Your task to perform on an android device: check out phone information Image 0: 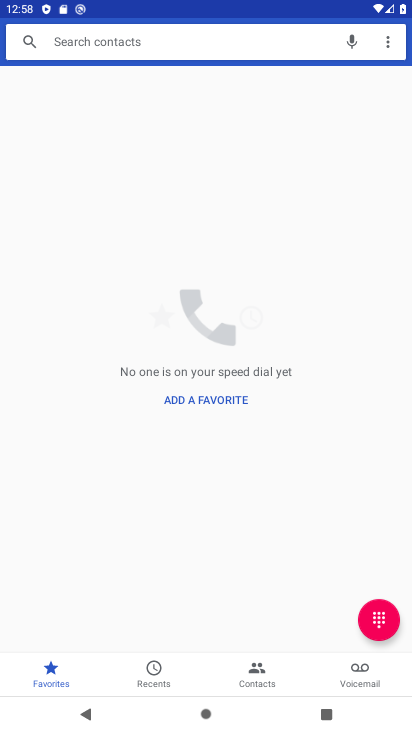
Step 0: press home button
Your task to perform on an android device: check out phone information Image 1: 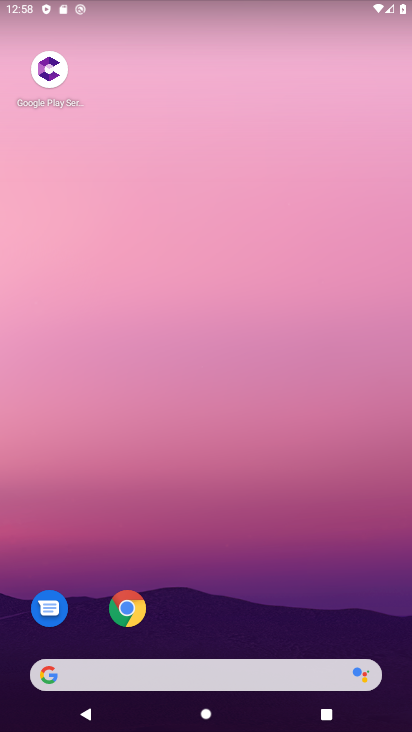
Step 1: drag from (126, 655) to (136, 251)
Your task to perform on an android device: check out phone information Image 2: 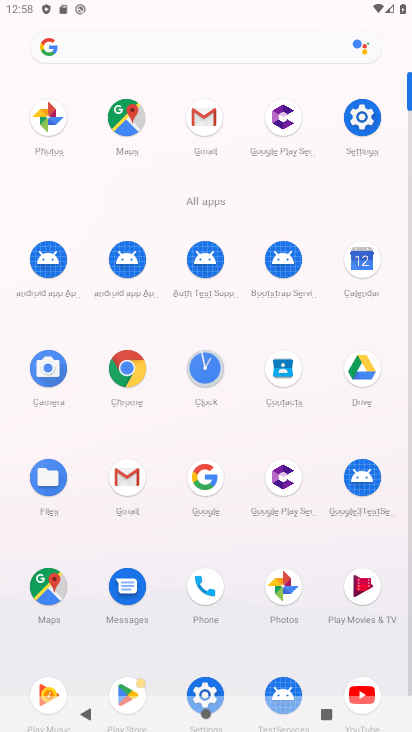
Step 2: click (206, 592)
Your task to perform on an android device: check out phone information Image 3: 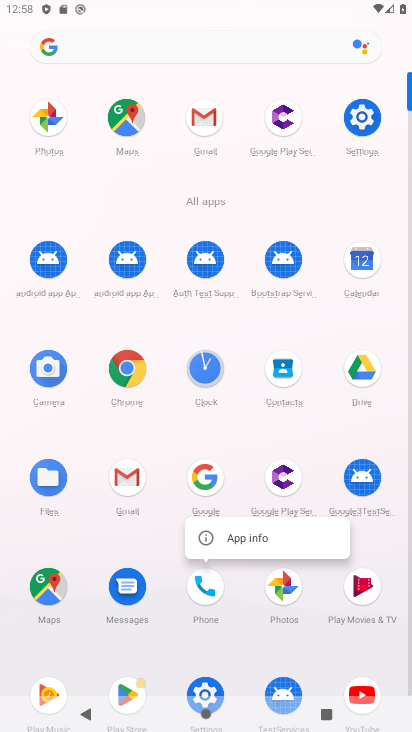
Step 3: click (210, 537)
Your task to perform on an android device: check out phone information Image 4: 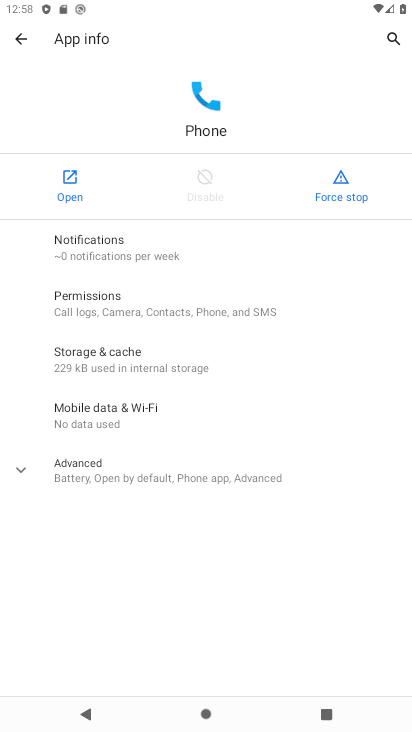
Step 4: click (117, 479)
Your task to perform on an android device: check out phone information Image 5: 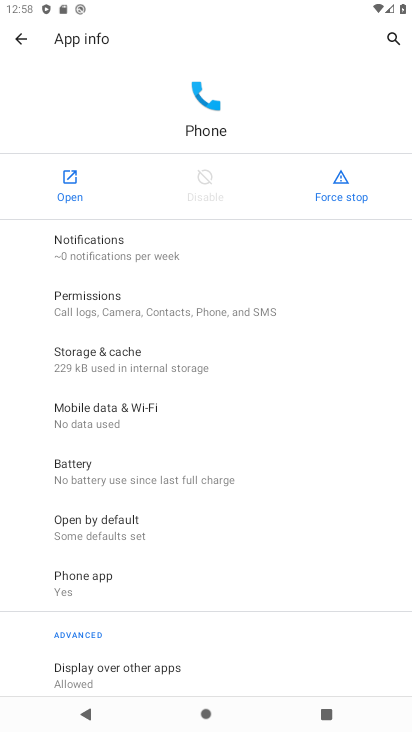
Step 5: task complete